Your task to perform on an android device: Show me recent news Image 0: 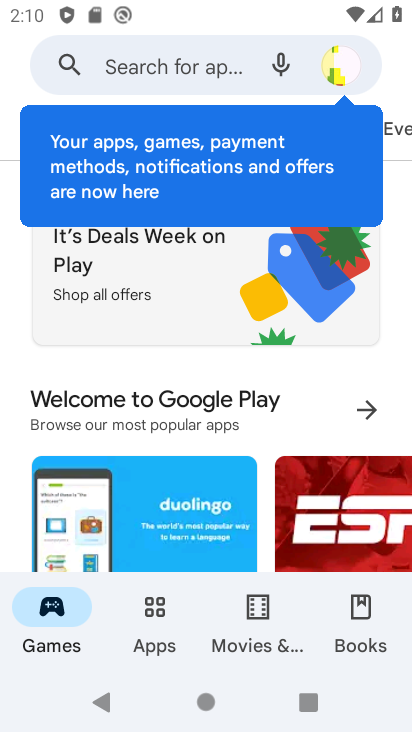
Step 0: press home button
Your task to perform on an android device: Show me recent news Image 1: 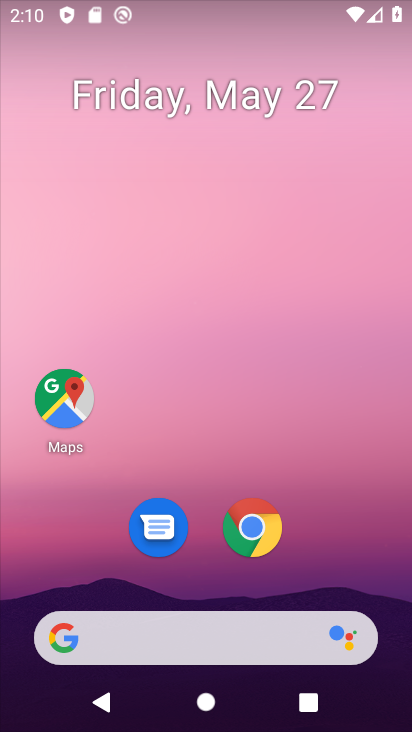
Step 1: drag from (210, 628) to (167, 240)
Your task to perform on an android device: Show me recent news Image 2: 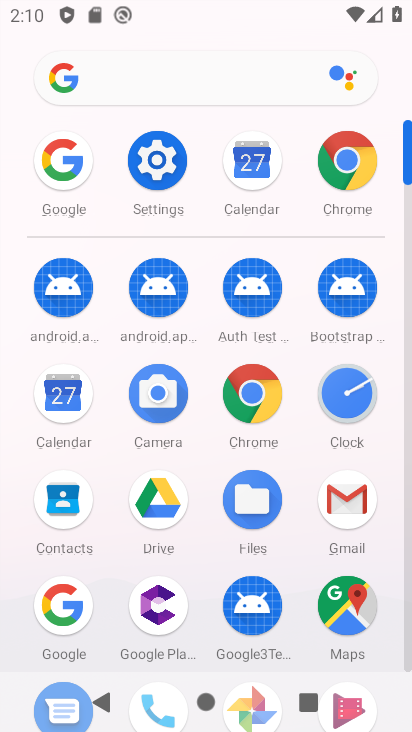
Step 2: click (72, 172)
Your task to perform on an android device: Show me recent news Image 3: 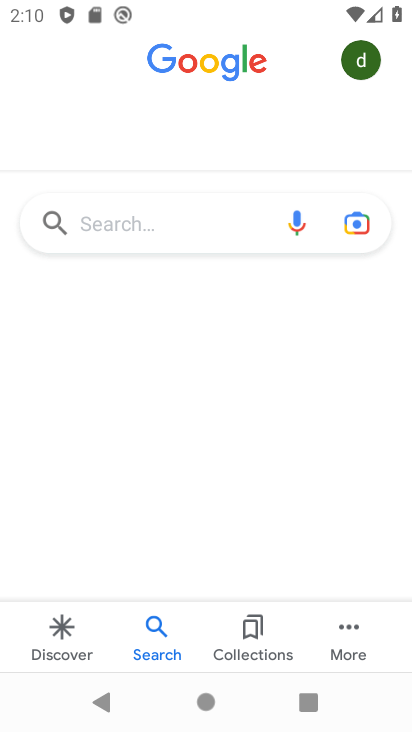
Step 3: press home button
Your task to perform on an android device: Show me recent news Image 4: 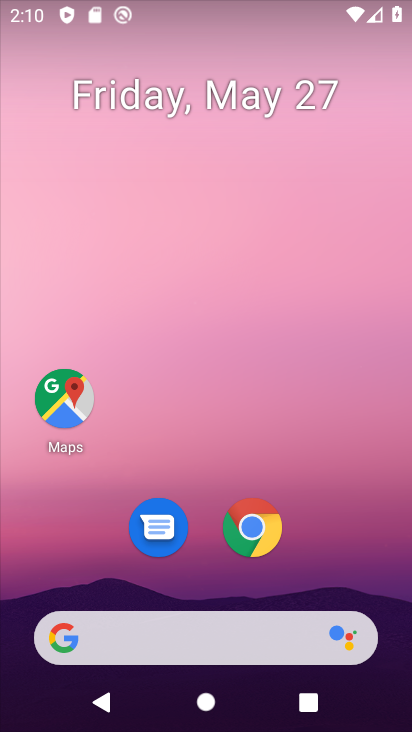
Step 4: drag from (193, 448) to (204, 144)
Your task to perform on an android device: Show me recent news Image 5: 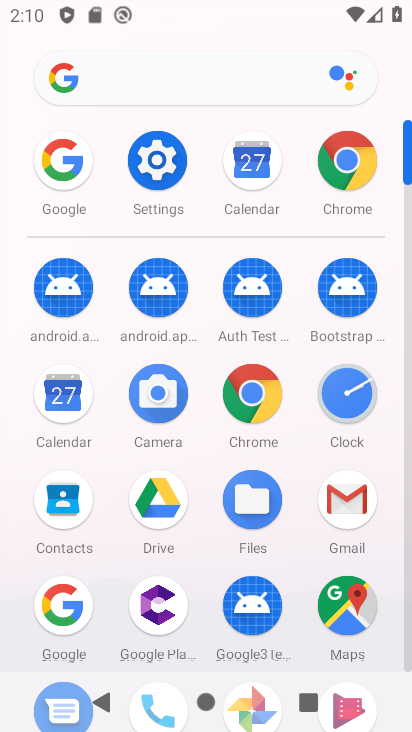
Step 5: click (62, 607)
Your task to perform on an android device: Show me recent news Image 6: 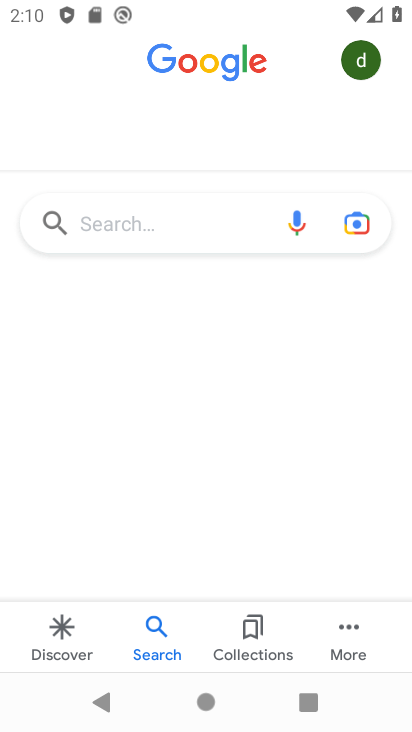
Step 6: click (184, 221)
Your task to perform on an android device: Show me recent news Image 7: 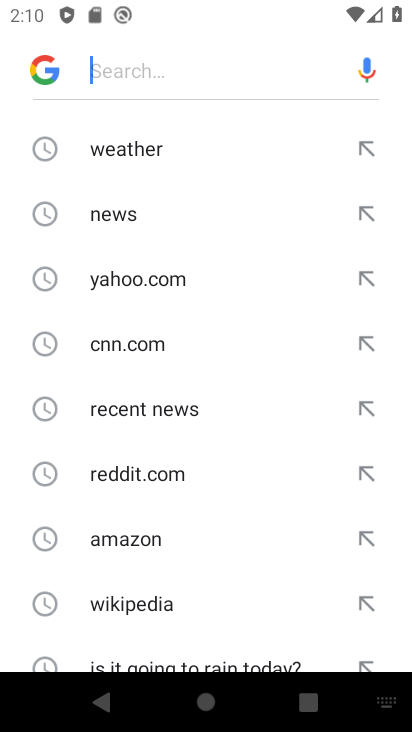
Step 7: click (133, 408)
Your task to perform on an android device: Show me recent news Image 8: 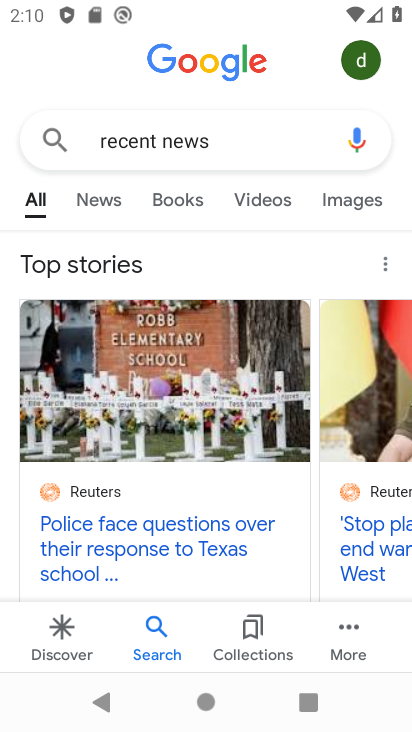
Step 8: task complete